Your task to perform on an android device: Search for Italian restaurants on Maps Image 0: 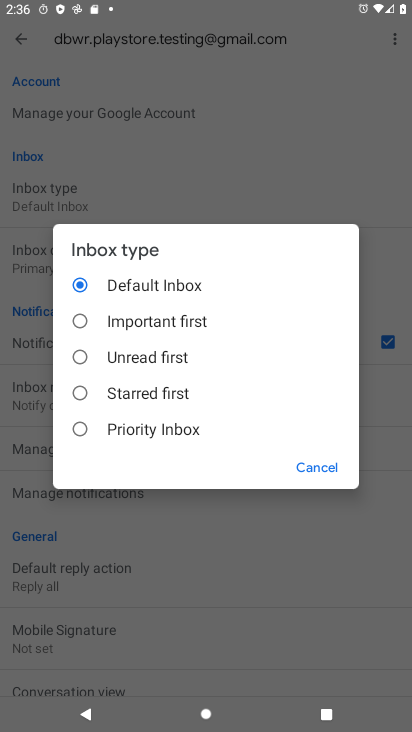
Step 0: press home button
Your task to perform on an android device: Search for Italian restaurants on Maps Image 1: 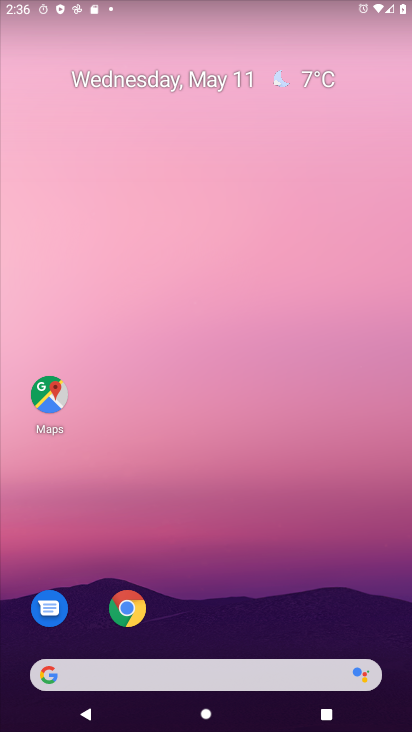
Step 1: click (48, 398)
Your task to perform on an android device: Search for Italian restaurants on Maps Image 2: 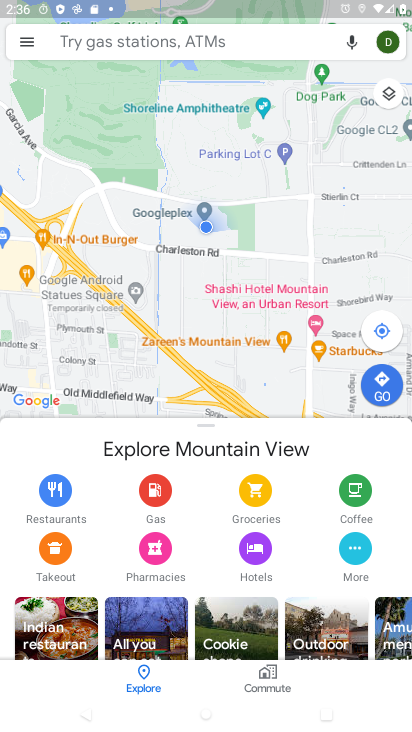
Step 2: click (187, 41)
Your task to perform on an android device: Search for Italian restaurants on Maps Image 3: 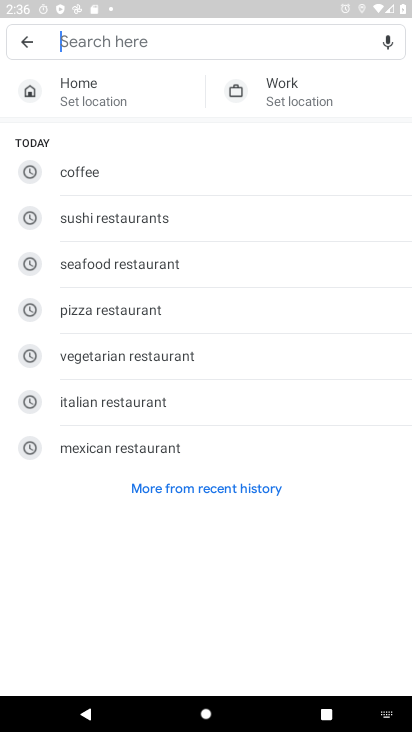
Step 3: click (119, 390)
Your task to perform on an android device: Search for Italian restaurants on Maps Image 4: 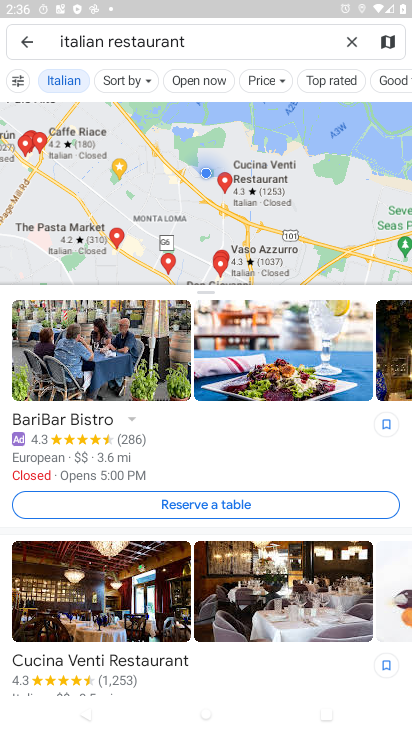
Step 4: task complete